Your task to perform on an android device: allow cookies in the chrome app Image 0: 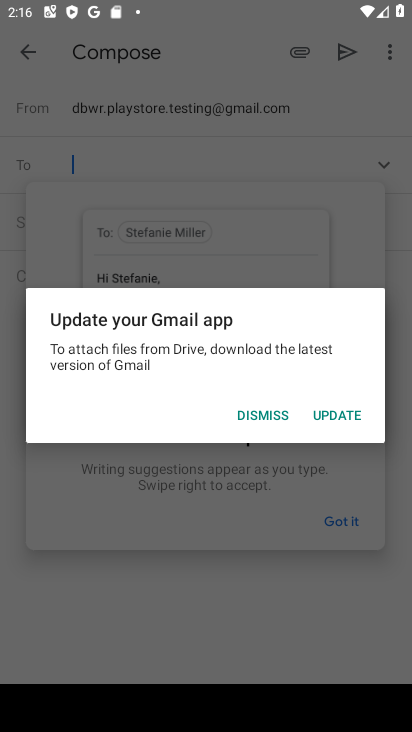
Step 0: press home button
Your task to perform on an android device: allow cookies in the chrome app Image 1: 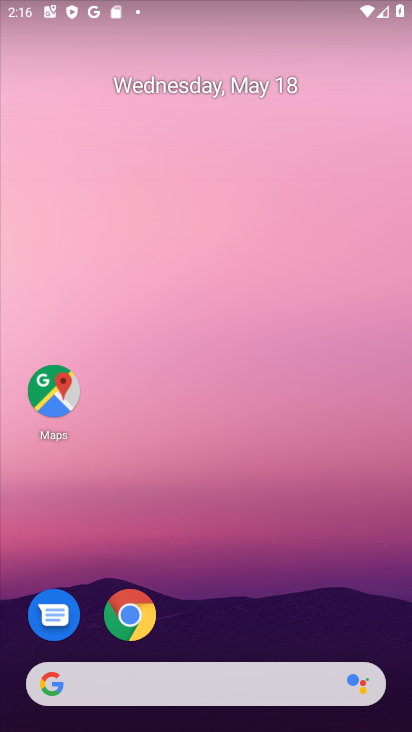
Step 1: drag from (218, 647) to (185, 152)
Your task to perform on an android device: allow cookies in the chrome app Image 2: 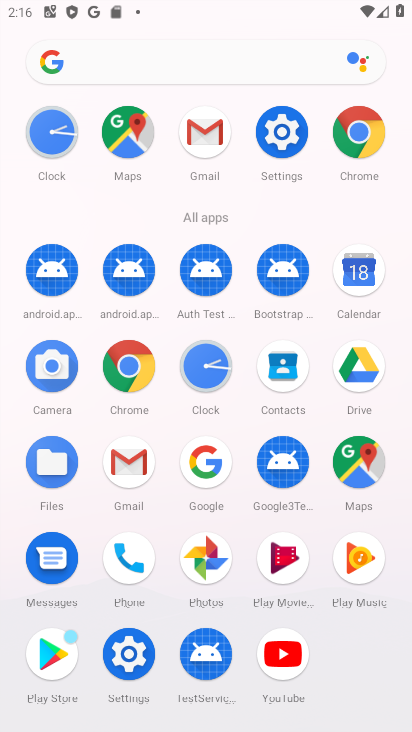
Step 2: click (346, 115)
Your task to perform on an android device: allow cookies in the chrome app Image 3: 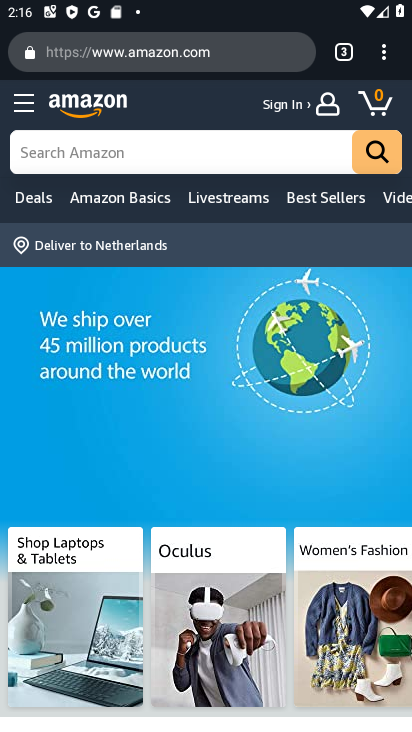
Step 3: click (386, 60)
Your task to perform on an android device: allow cookies in the chrome app Image 4: 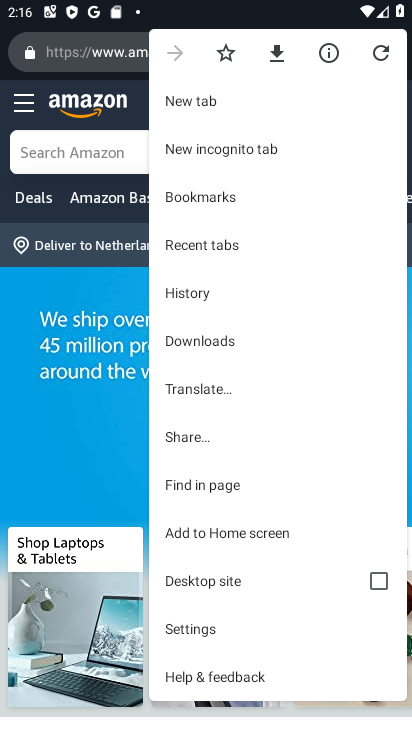
Step 4: click (204, 633)
Your task to perform on an android device: allow cookies in the chrome app Image 5: 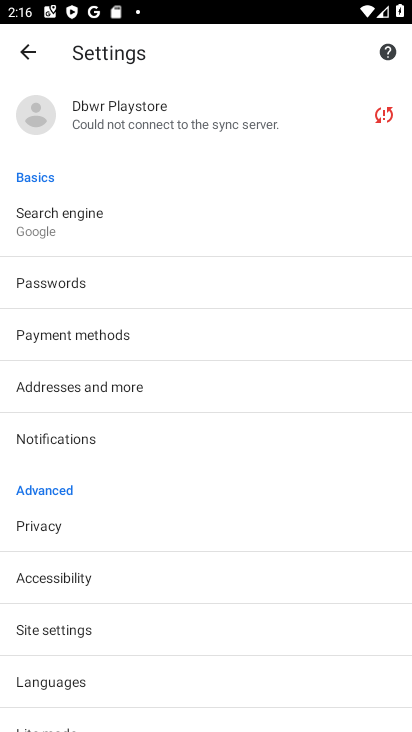
Step 5: click (204, 633)
Your task to perform on an android device: allow cookies in the chrome app Image 6: 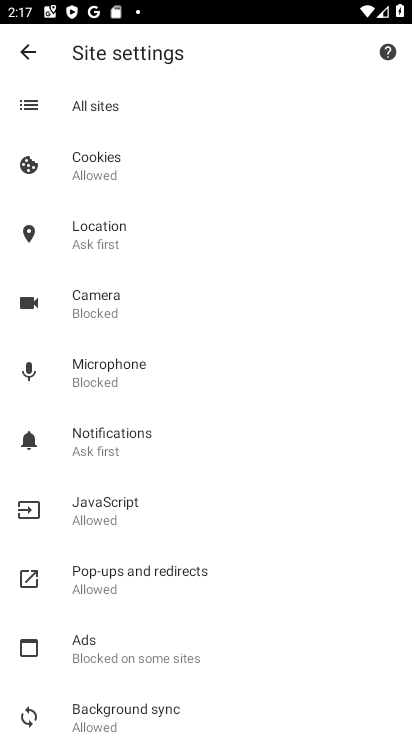
Step 6: click (203, 174)
Your task to perform on an android device: allow cookies in the chrome app Image 7: 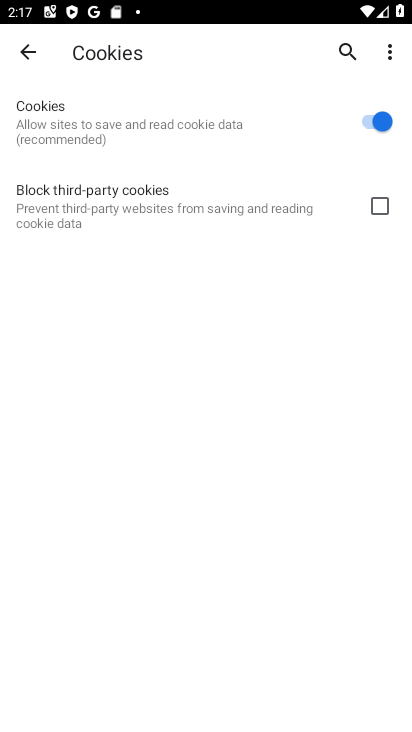
Step 7: task complete